Your task to perform on an android device: open the mobile data screen to see how much data has been used Image 0: 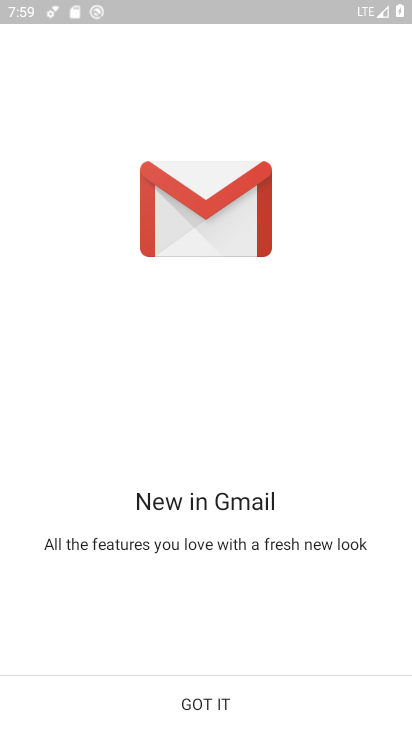
Step 0: press home button
Your task to perform on an android device: open the mobile data screen to see how much data has been used Image 1: 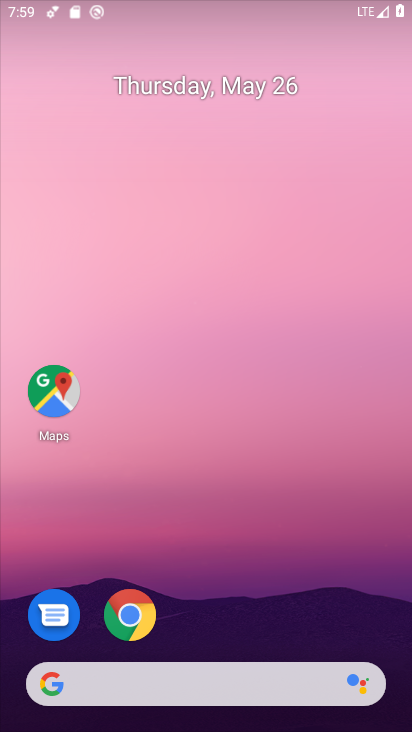
Step 1: drag from (190, 625) to (228, 181)
Your task to perform on an android device: open the mobile data screen to see how much data has been used Image 2: 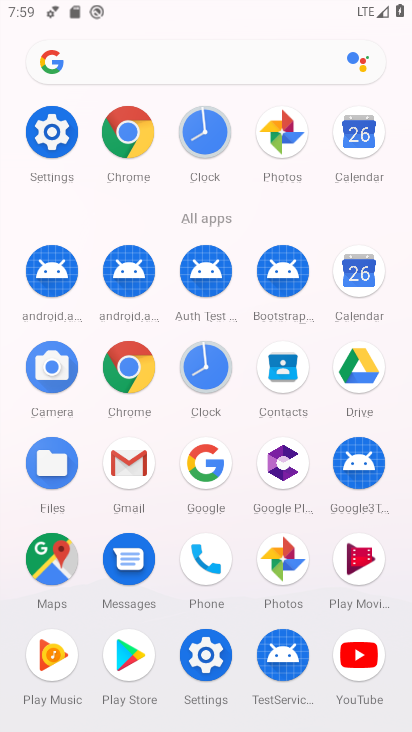
Step 2: click (49, 129)
Your task to perform on an android device: open the mobile data screen to see how much data has been used Image 3: 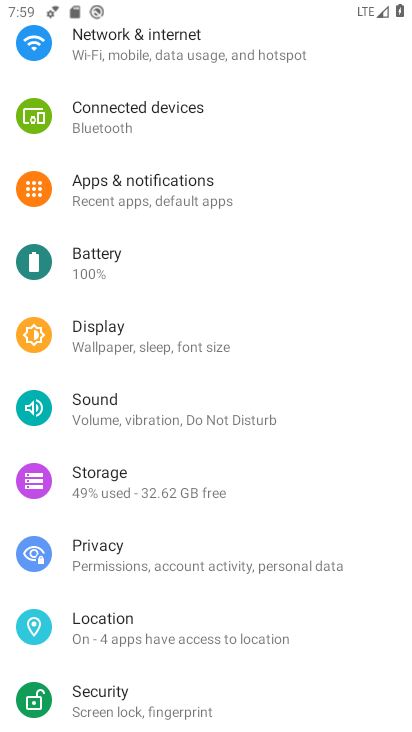
Step 3: drag from (178, 92) to (158, 573)
Your task to perform on an android device: open the mobile data screen to see how much data has been used Image 4: 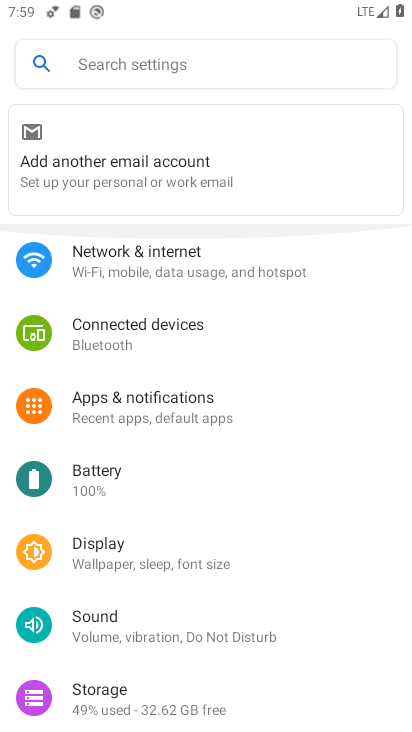
Step 4: click (118, 248)
Your task to perform on an android device: open the mobile data screen to see how much data has been used Image 5: 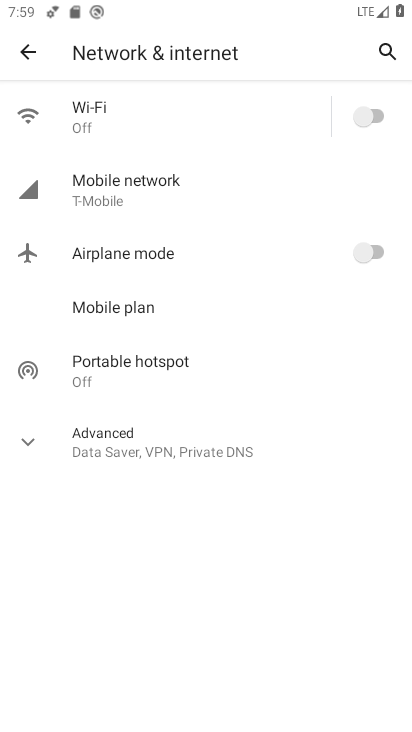
Step 5: click (146, 182)
Your task to perform on an android device: open the mobile data screen to see how much data has been used Image 6: 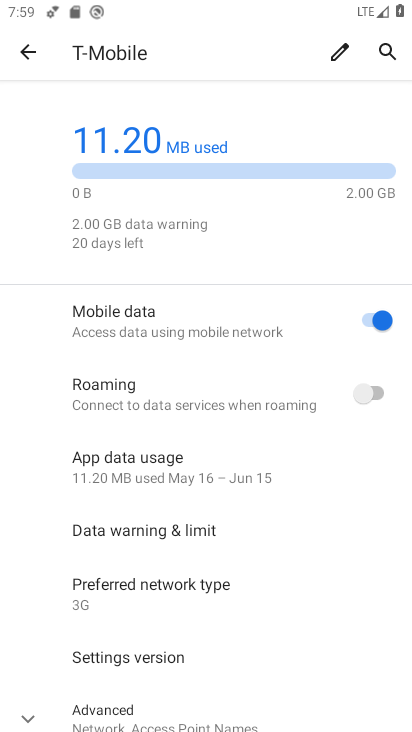
Step 6: task complete